Your task to perform on an android device: Open calendar and show me the first week of next month Image 0: 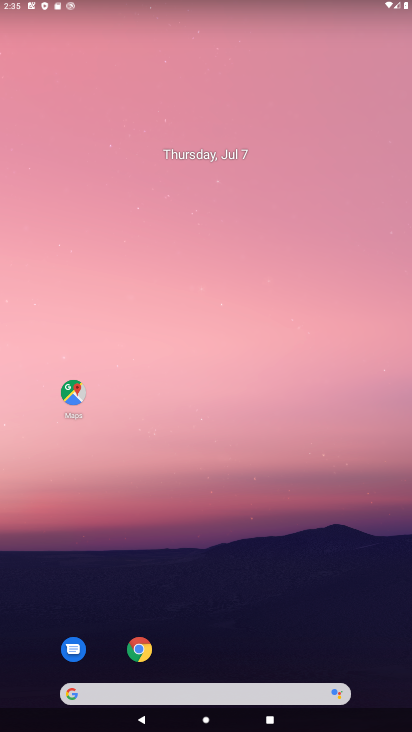
Step 0: drag from (215, 676) to (176, 108)
Your task to perform on an android device: Open calendar and show me the first week of next month Image 1: 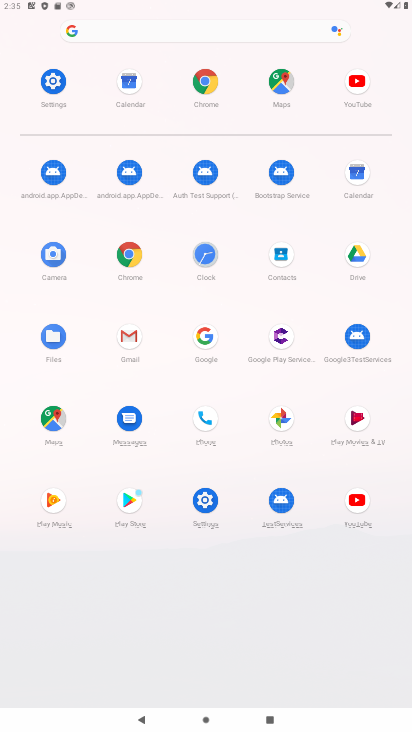
Step 1: click (369, 183)
Your task to perform on an android device: Open calendar and show me the first week of next month Image 2: 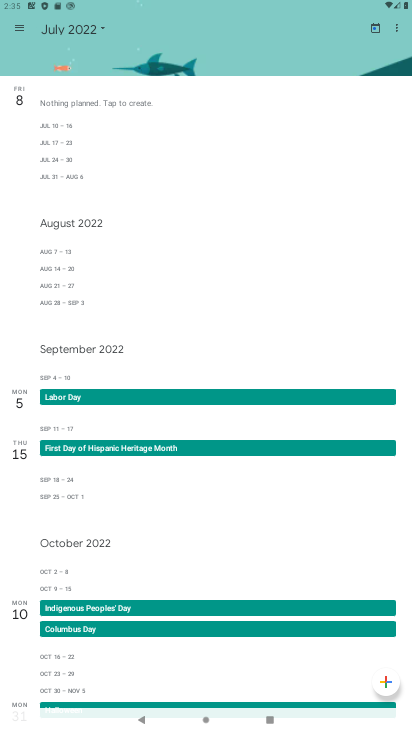
Step 2: click (108, 19)
Your task to perform on an android device: Open calendar and show me the first week of next month Image 3: 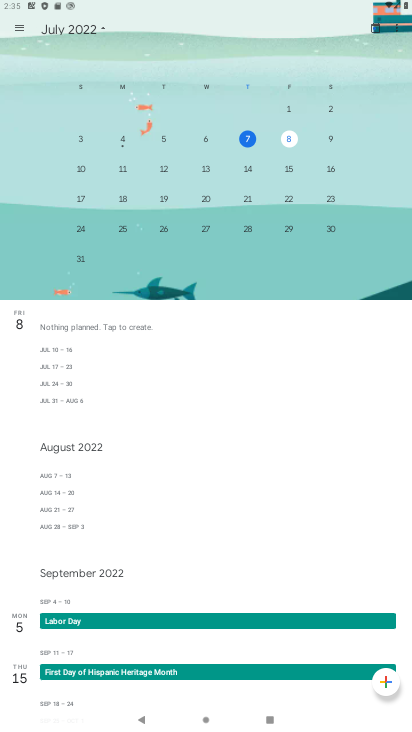
Step 3: drag from (359, 205) to (41, 278)
Your task to perform on an android device: Open calendar and show me the first week of next month Image 4: 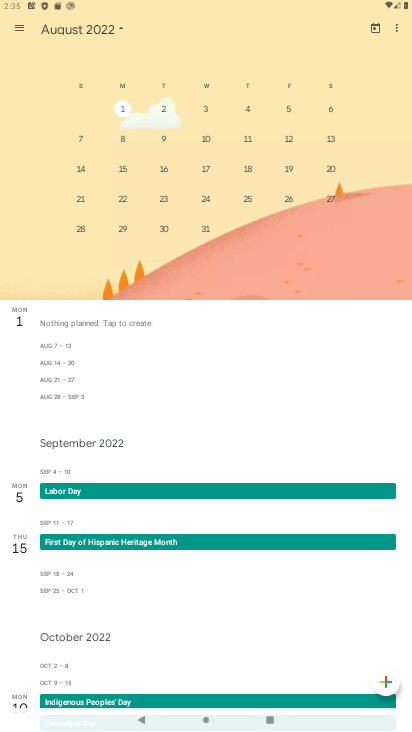
Step 4: click (250, 110)
Your task to perform on an android device: Open calendar and show me the first week of next month Image 5: 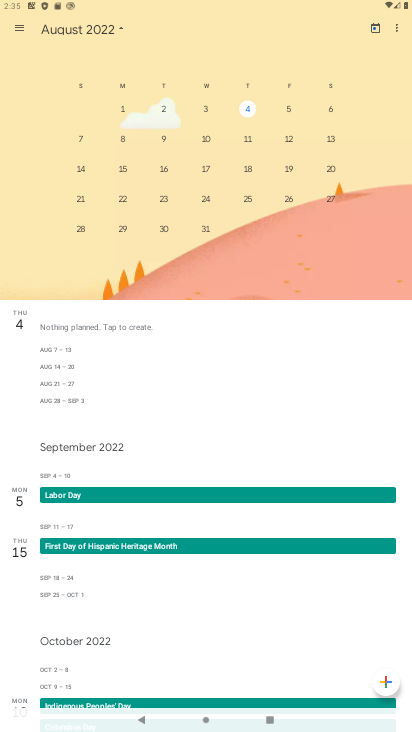
Step 5: task complete